Your task to perform on an android device: Open the web browser Image 0: 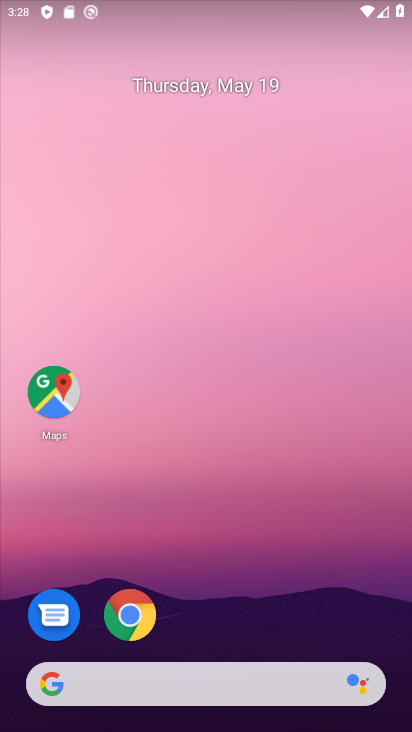
Step 0: drag from (225, 493) to (166, 121)
Your task to perform on an android device: Open the web browser Image 1: 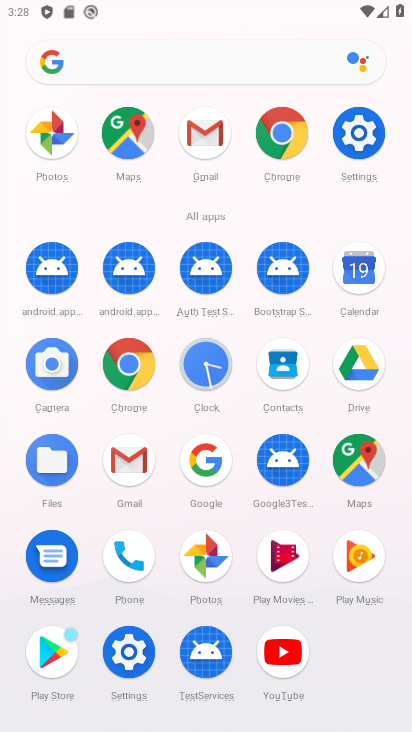
Step 1: click (280, 142)
Your task to perform on an android device: Open the web browser Image 2: 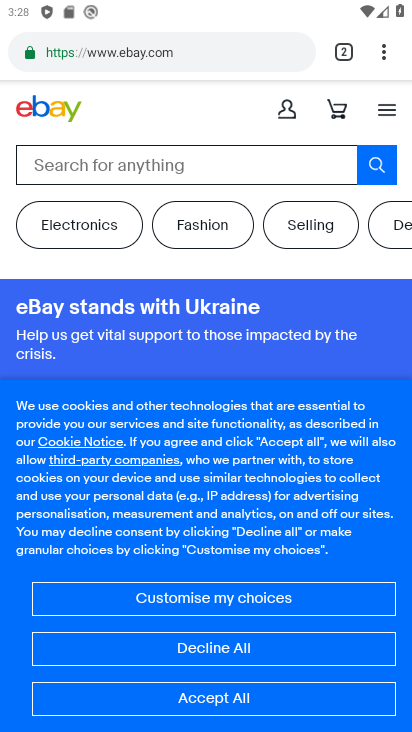
Step 2: drag from (387, 51) to (189, 94)
Your task to perform on an android device: Open the web browser Image 3: 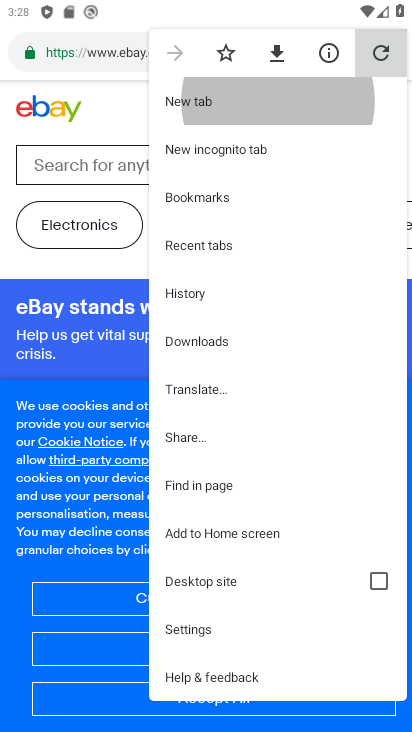
Step 3: click (191, 94)
Your task to perform on an android device: Open the web browser Image 4: 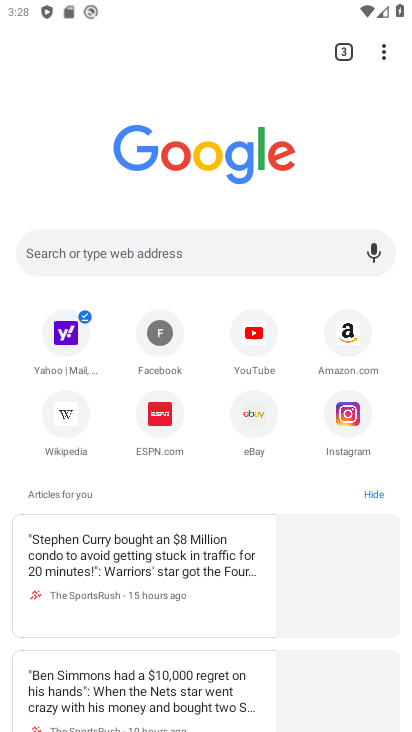
Step 4: click (200, 99)
Your task to perform on an android device: Open the web browser Image 5: 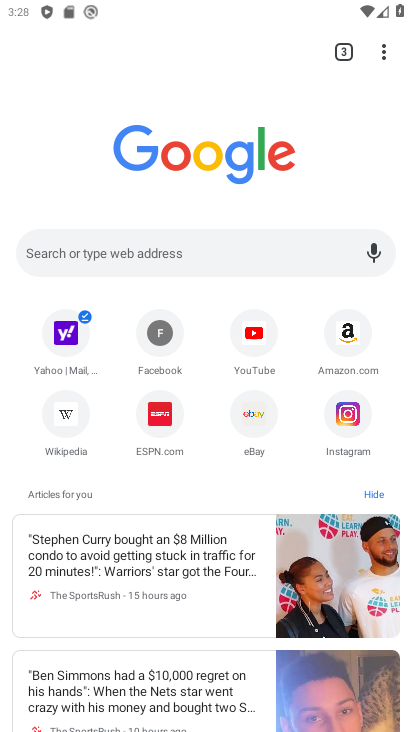
Step 5: task complete